Your task to perform on an android device: open app "Adobe Acrobat Reader: Edit PDF" Image 0: 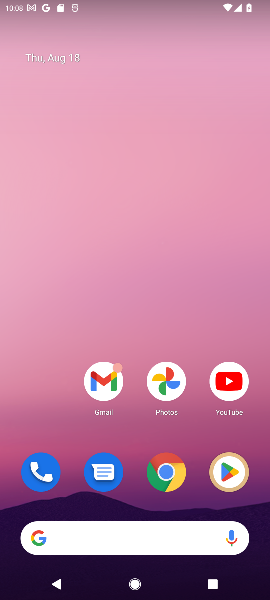
Step 0: drag from (209, 443) to (178, 113)
Your task to perform on an android device: open app "Adobe Acrobat Reader: Edit PDF" Image 1: 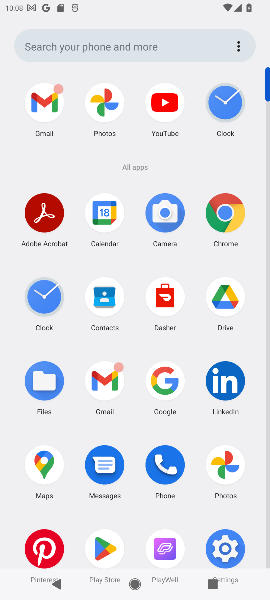
Step 1: click (100, 535)
Your task to perform on an android device: open app "Adobe Acrobat Reader: Edit PDF" Image 2: 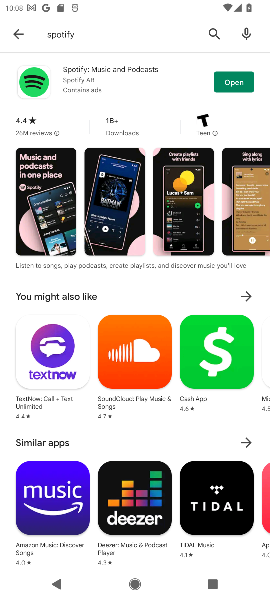
Step 2: click (210, 34)
Your task to perform on an android device: open app "Adobe Acrobat Reader: Edit PDF" Image 3: 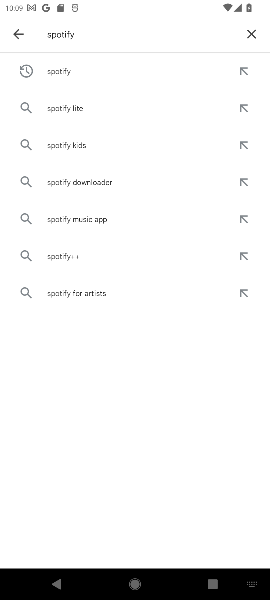
Step 3: click (250, 33)
Your task to perform on an android device: open app "Adobe Acrobat Reader: Edit PDF" Image 4: 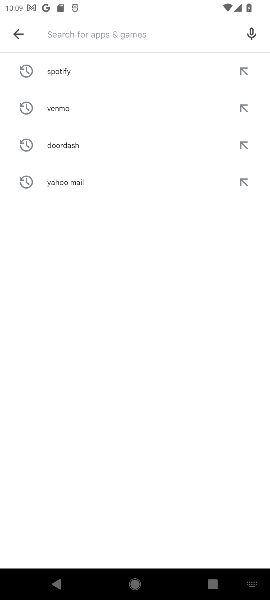
Step 4: type "adobe acrobat reader"
Your task to perform on an android device: open app "Adobe Acrobat Reader: Edit PDF" Image 5: 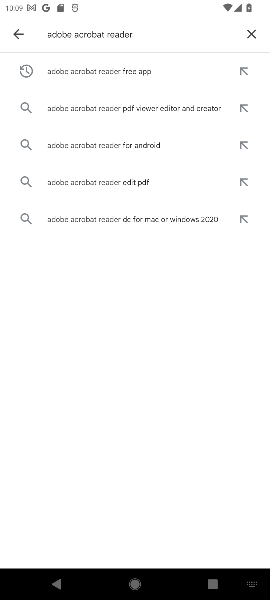
Step 5: click (150, 68)
Your task to perform on an android device: open app "Adobe Acrobat Reader: Edit PDF" Image 6: 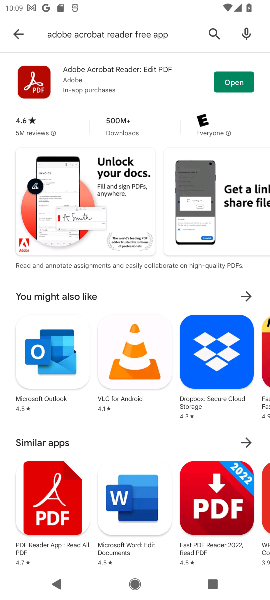
Step 6: click (238, 84)
Your task to perform on an android device: open app "Adobe Acrobat Reader: Edit PDF" Image 7: 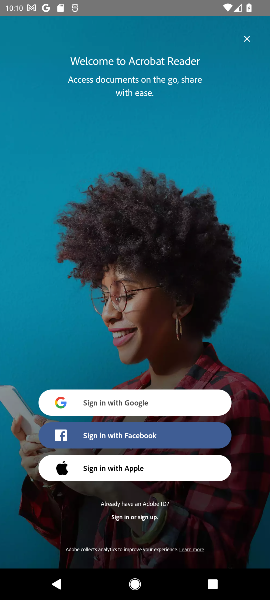
Step 7: task complete